Your task to perform on an android device: Open Google Maps Image 0: 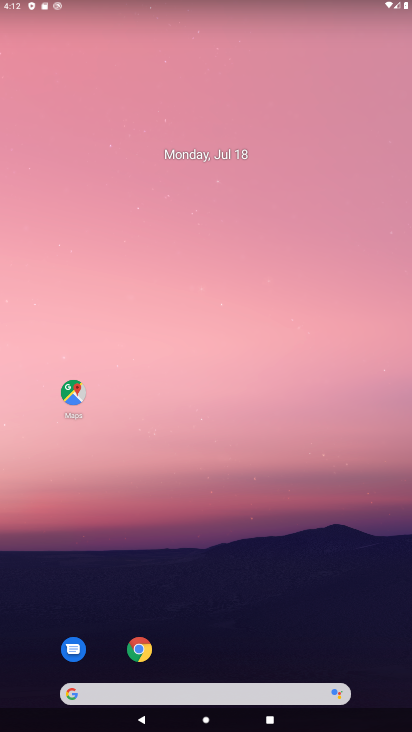
Step 0: click (86, 386)
Your task to perform on an android device: Open Google Maps Image 1: 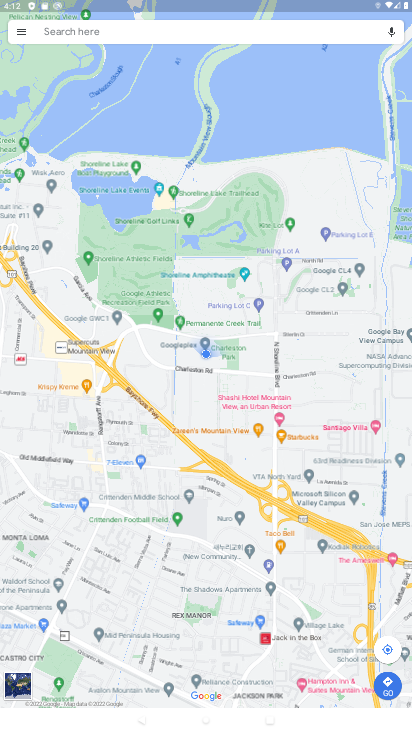
Step 1: task complete